Your task to perform on an android device: open app "ColorNote Notepad Notes" (install if not already installed) Image 0: 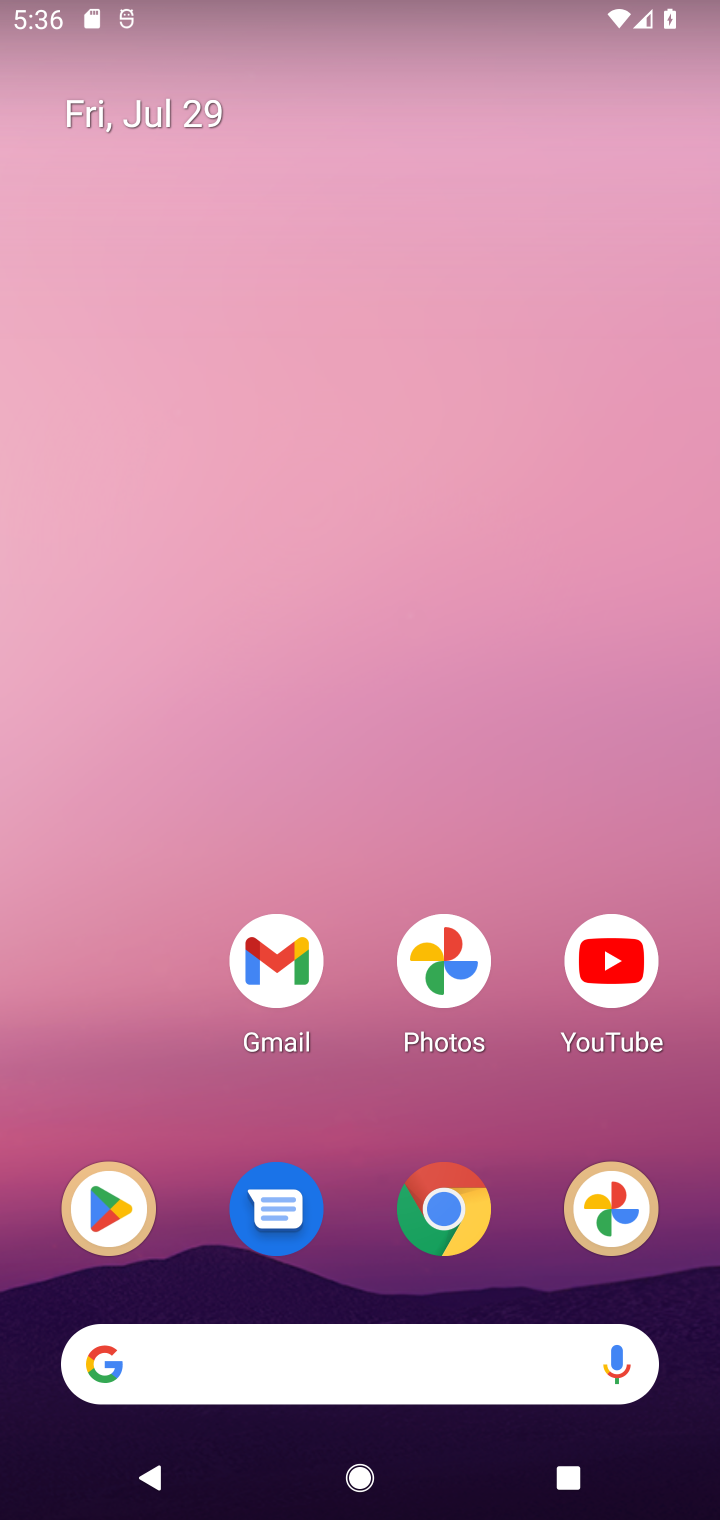
Step 0: click (100, 1214)
Your task to perform on an android device: open app "ColorNote Notepad Notes" (install if not already installed) Image 1: 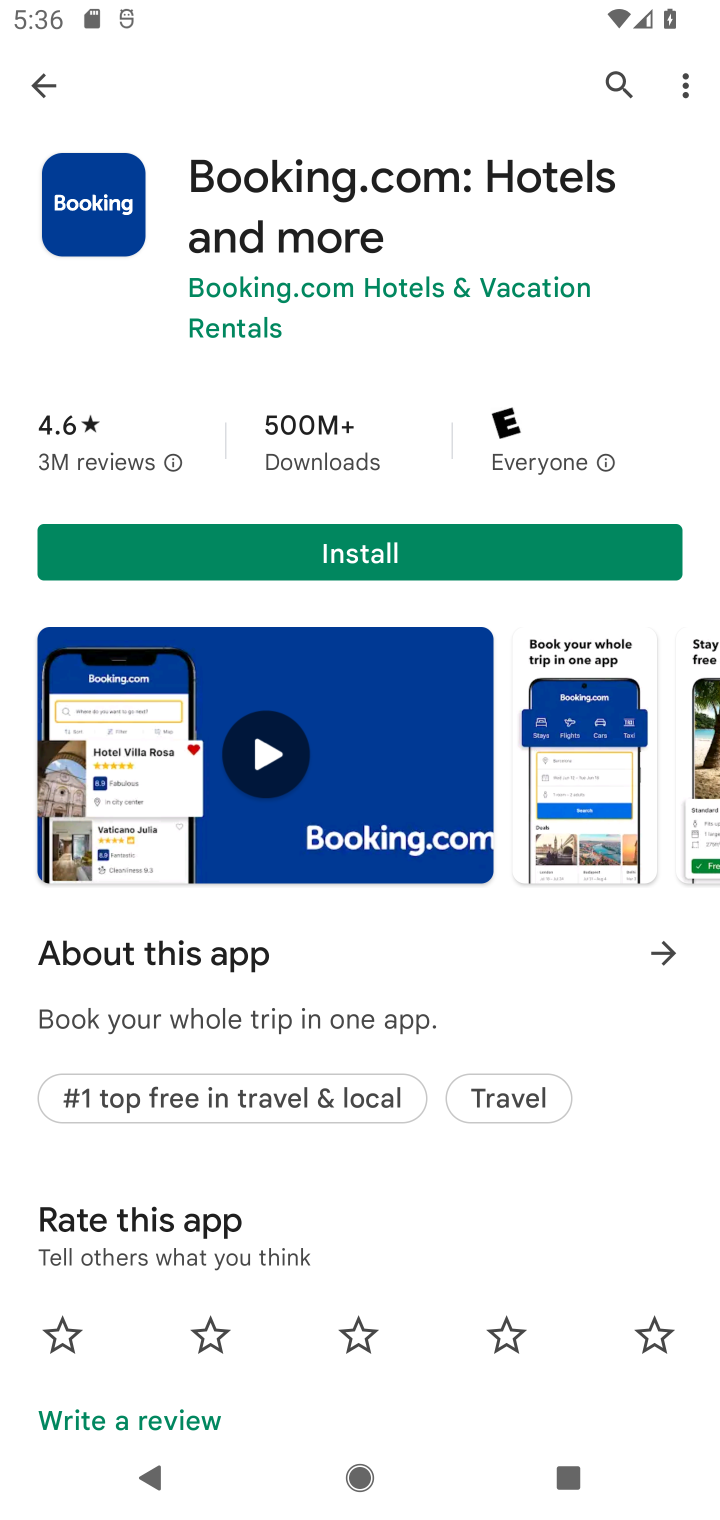
Step 1: click (617, 86)
Your task to perform on an android device: open app "ColorNote Notepad Notes" (install if not already installed) Image 2: 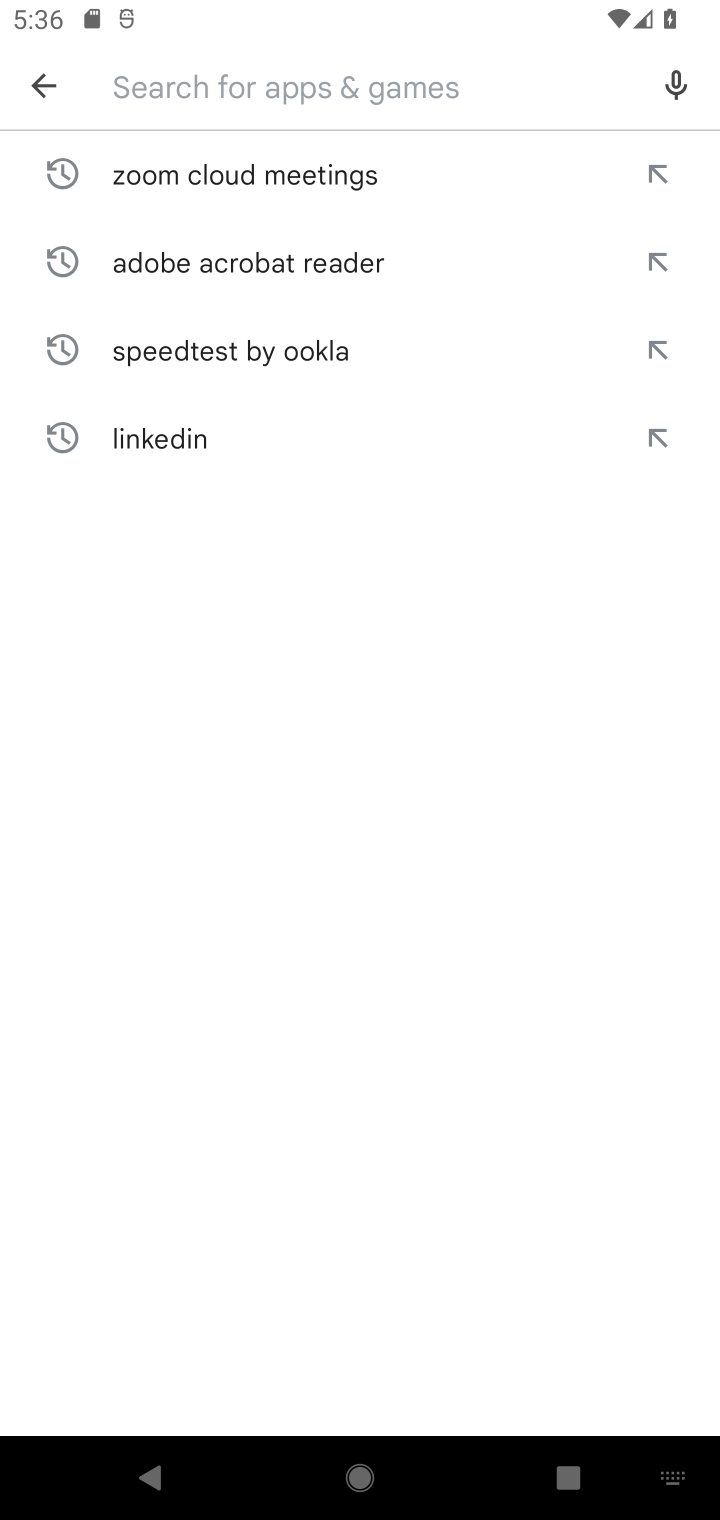
Step 2: click (371, 98)
Your task to perform on an android device: open app "ColorNote Notepad Notes" (install if not already installed) Image 3: 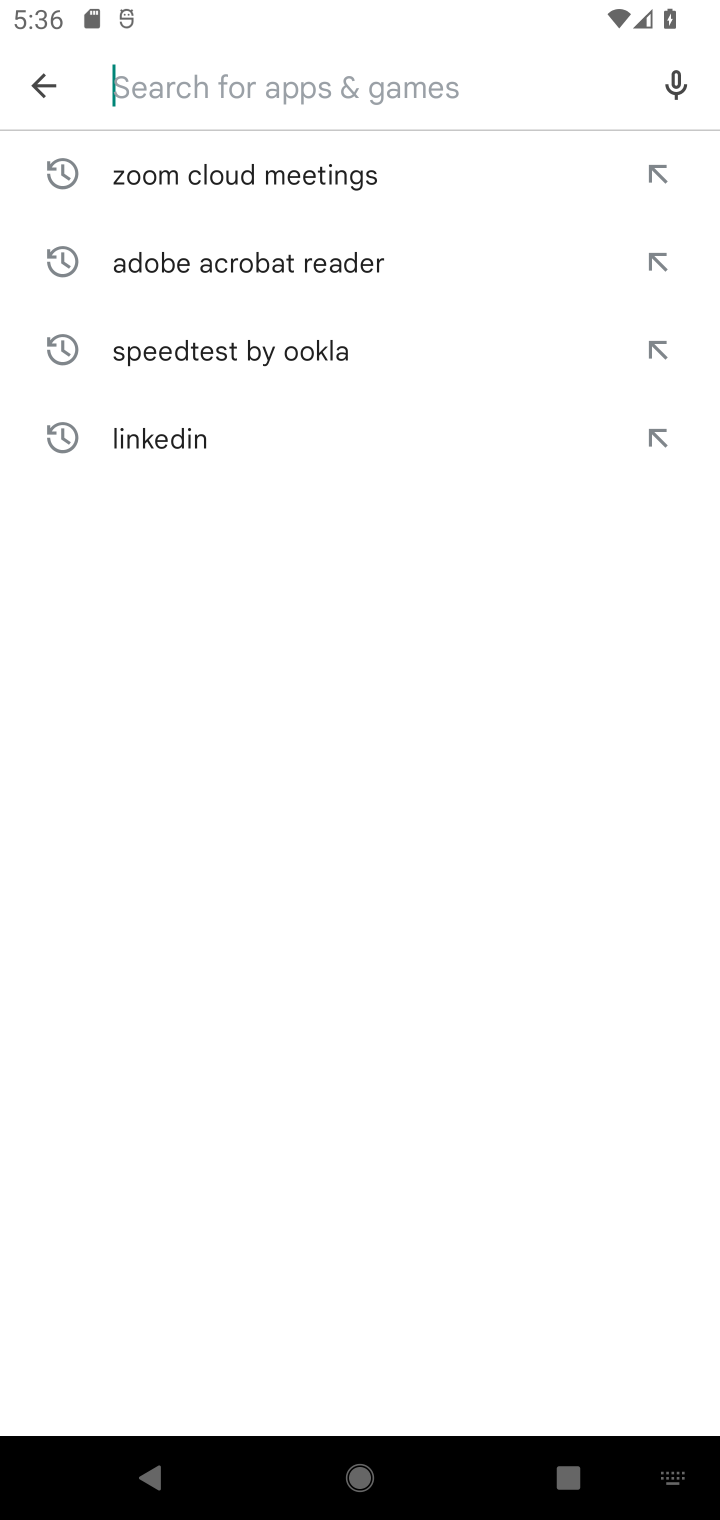
Step 3: type "ColorNote Notepad Notes"
Your task to perform on an android device: open app "ColorNote Notepad Notes" (install if not already installed) Image 4: 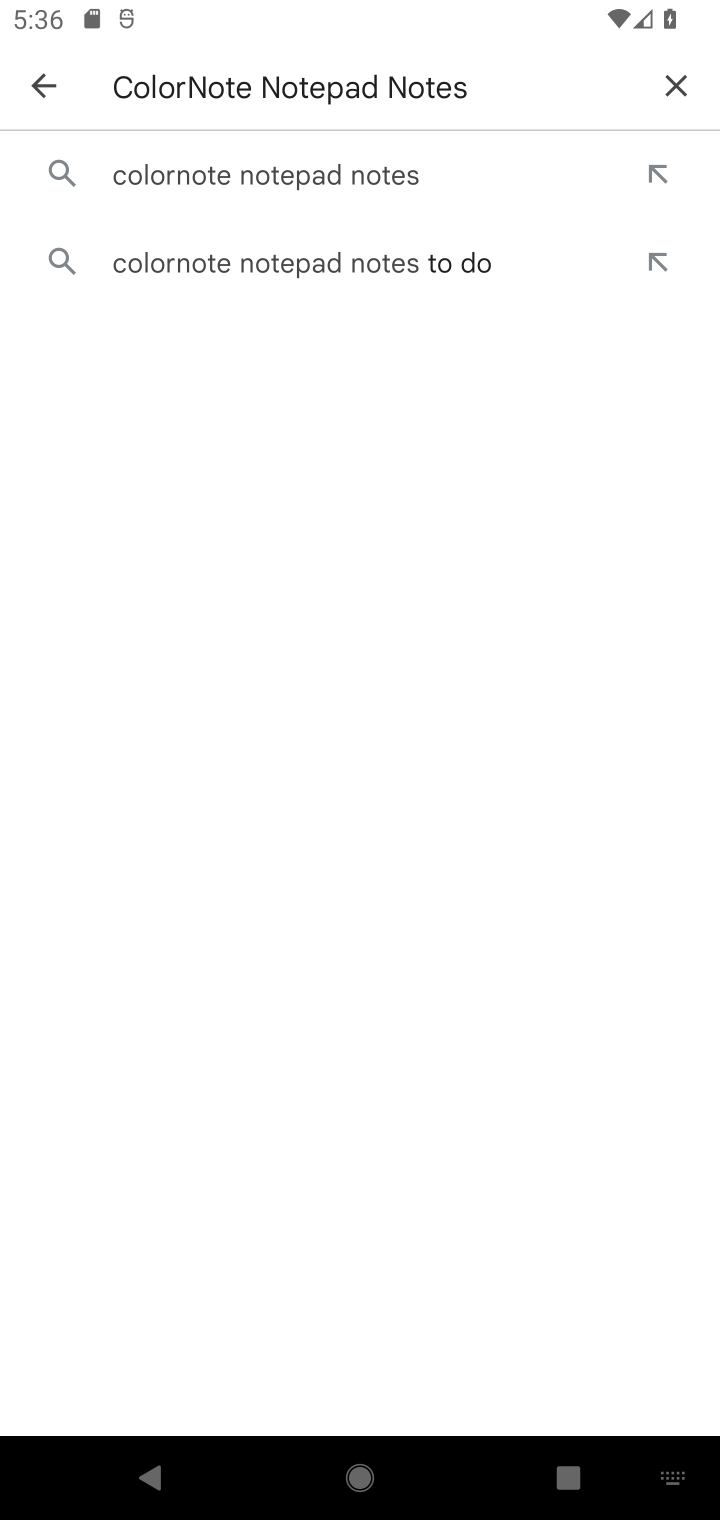
Step 4: click (256, 185)
Your task to perform on an android device: open app "ColorNote Notepad Notes" (install if not already installed) Image 5: 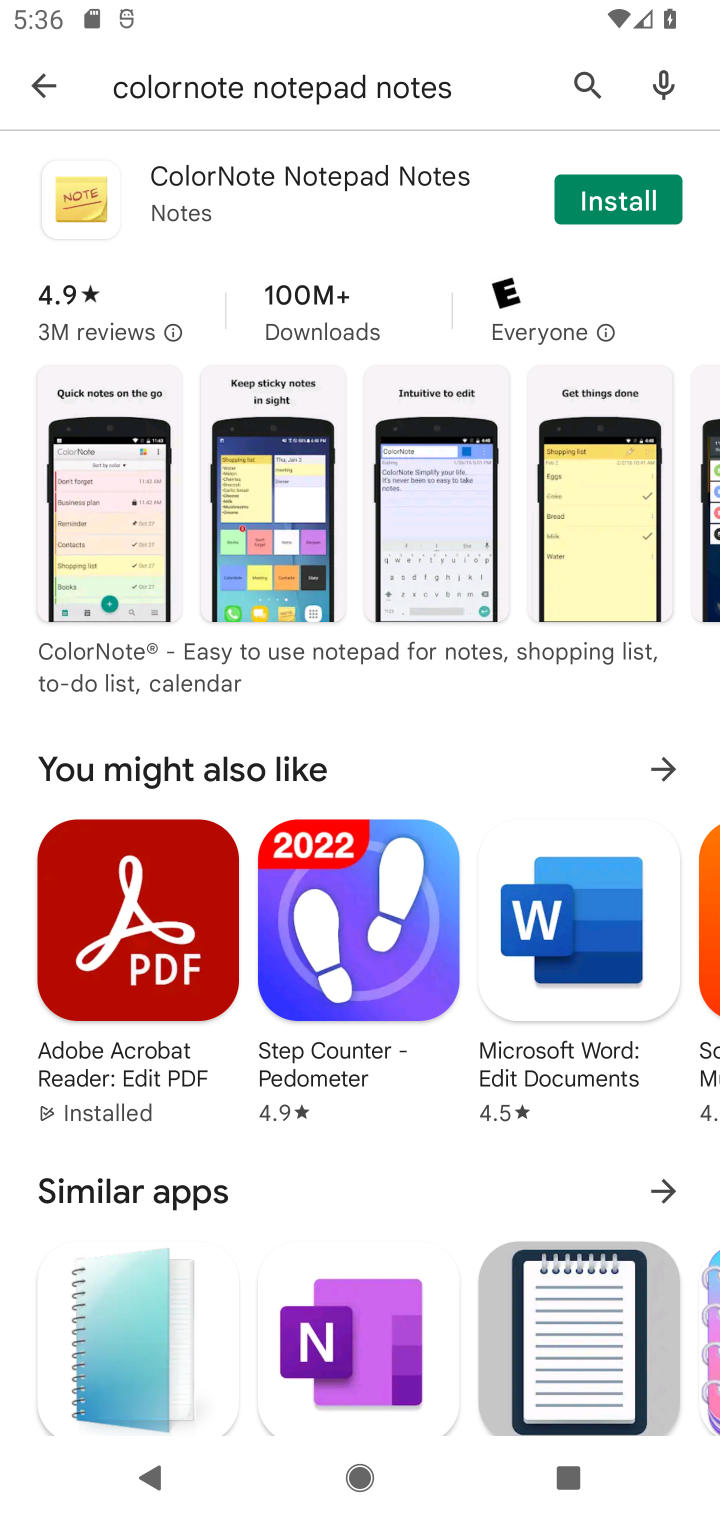
Step 5: click (574, 208)
Your task to perform on an android device: open app "ColorNote Notepad Notes" (install if not already installed) Image 6: 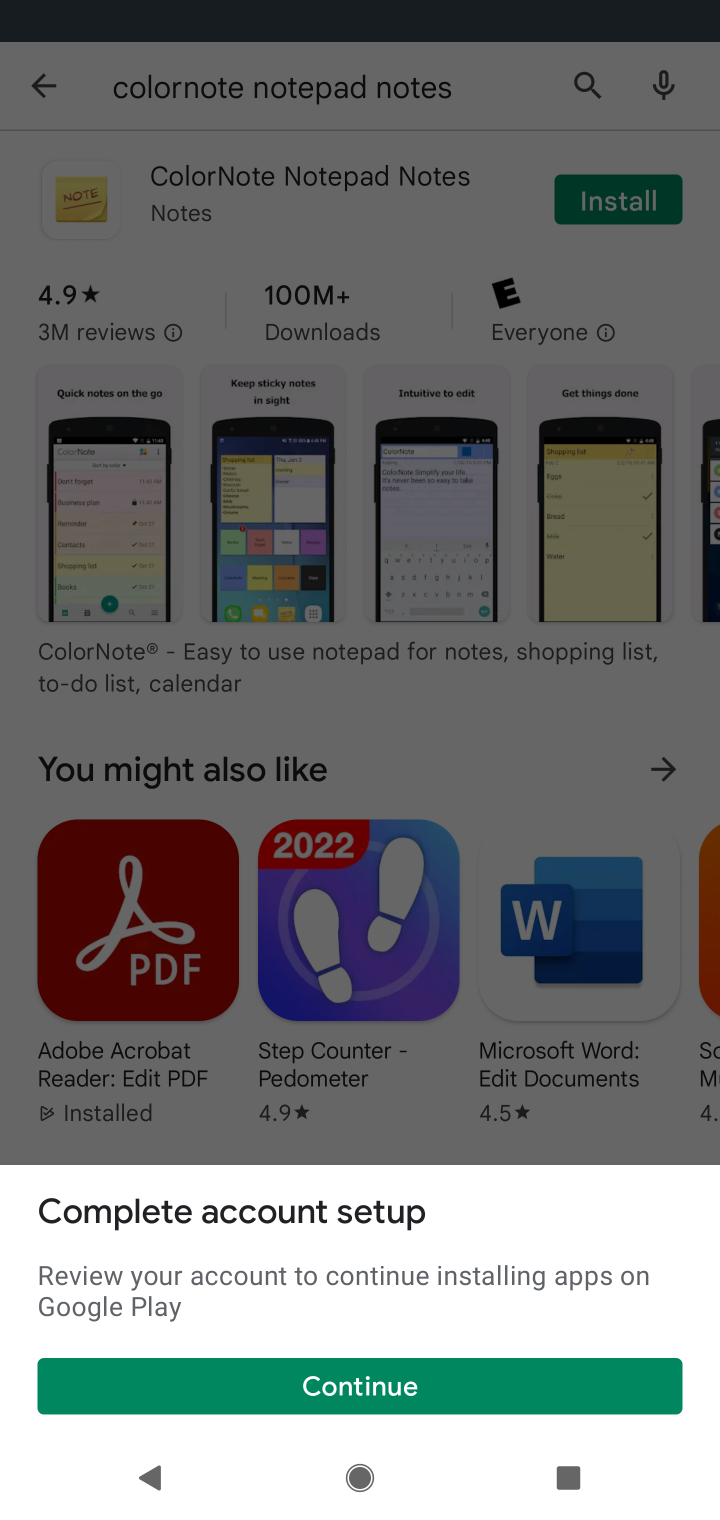
Step 6: click (362, 1387)
Your task to perform on an android device: open app "ColorNote Notepad Notes" (install if not already installed) Image 7: 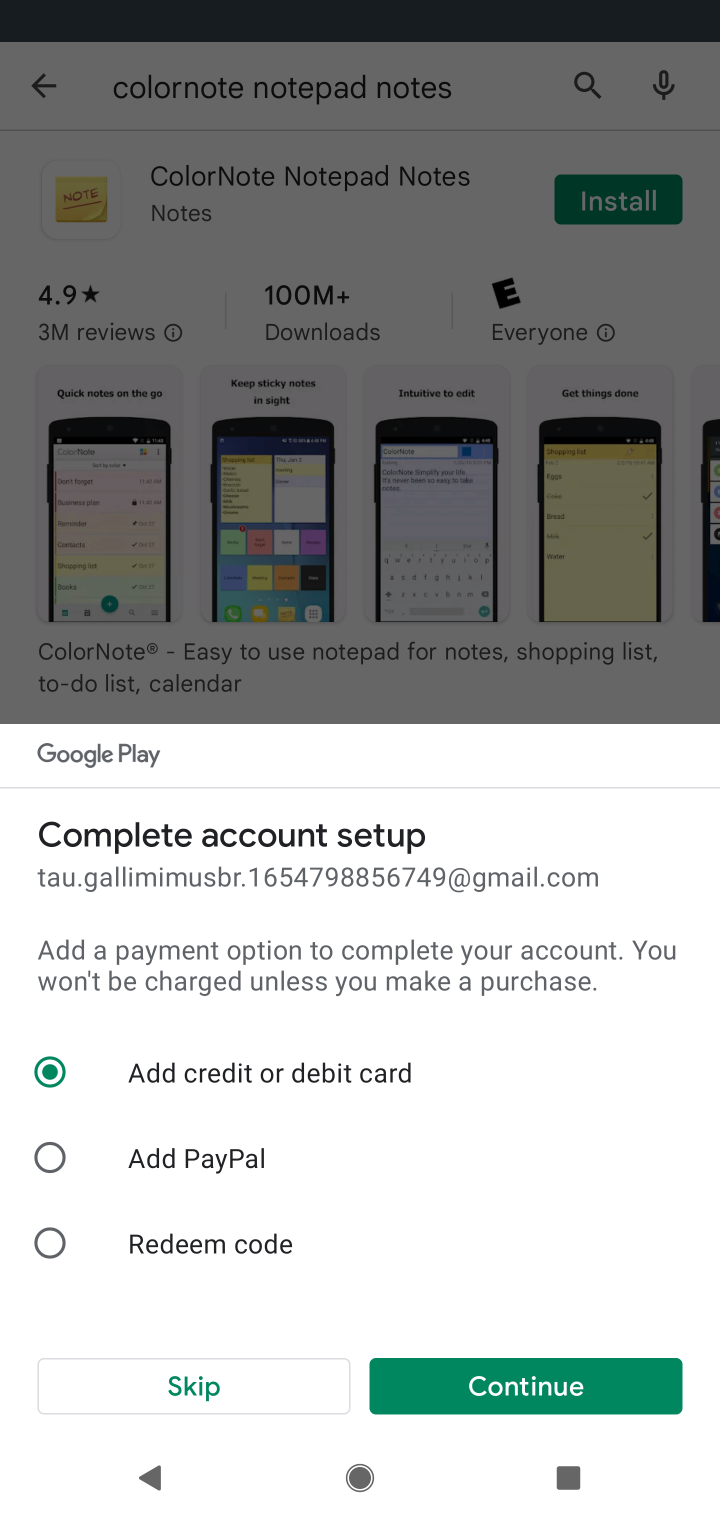
Step 7: click (184, 1375)
Your task to perform on an android device: open app "ColorNote Notepad Notes" (install if not already installed) Image 8: 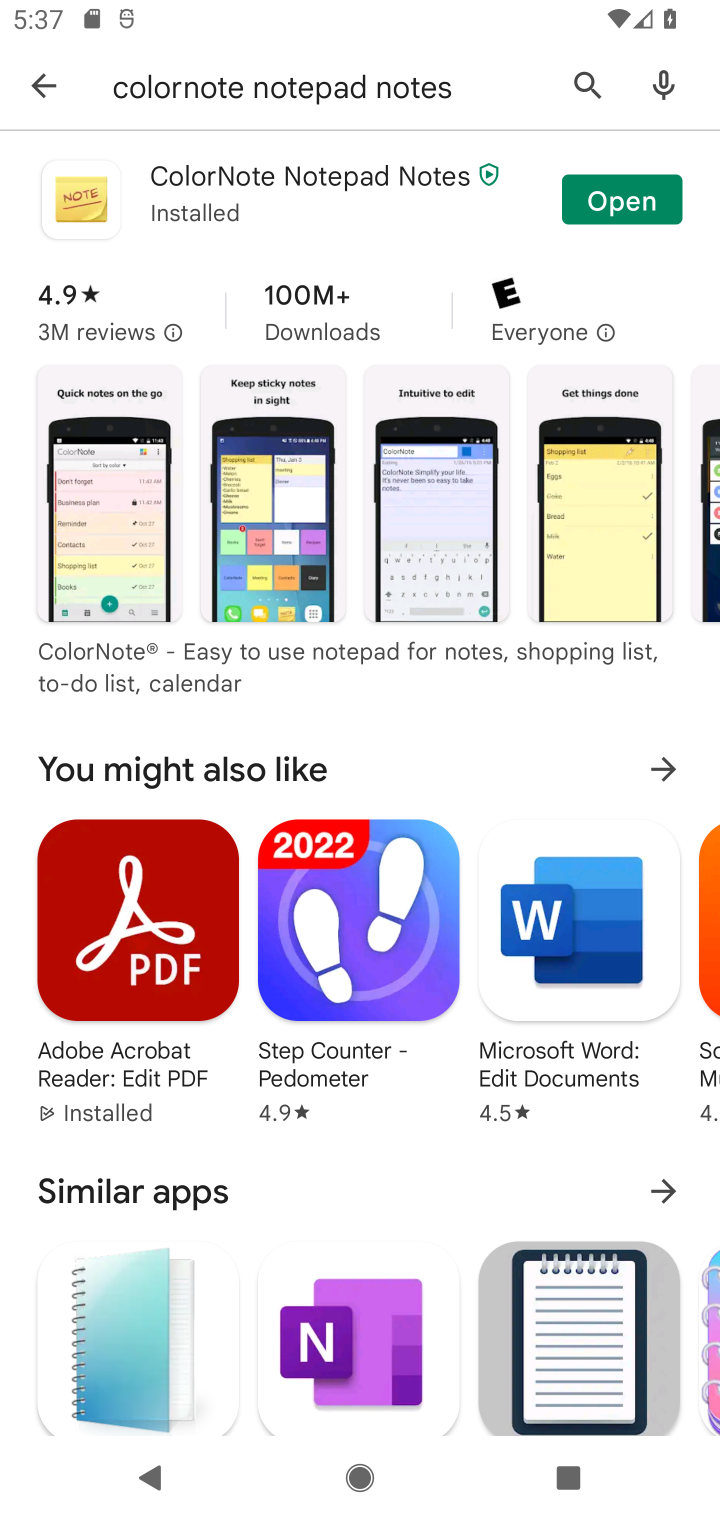
Step 8: click (638, 217)
Your task to perform on an android device: open app "ColorNote Notepad Notes" (install if not already installed) Image 9: 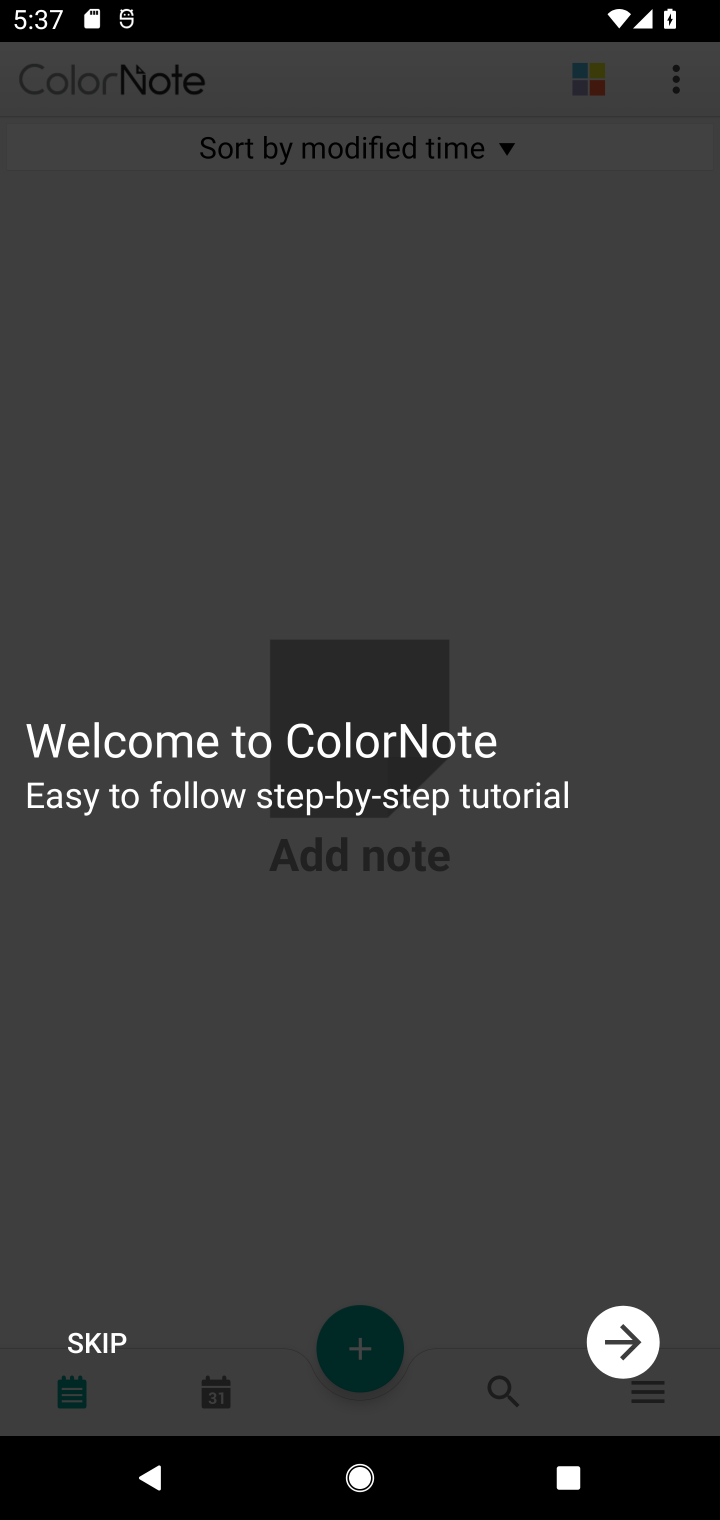
Step 9: task complete